Your task to perform on an android device: Open Wikipedia Image 0: 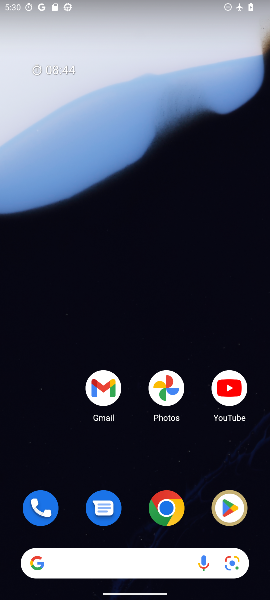
Step 0: drag from (185, 498) to (225, 213)
Your task to perform on an android device: Open Wikipedia Image 1: 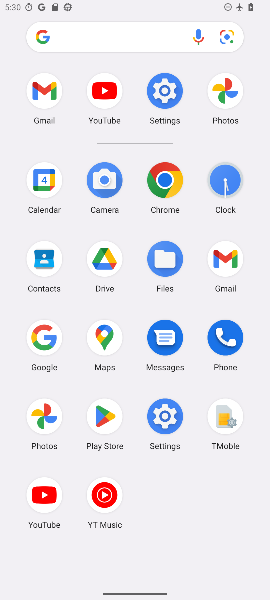
Step 1: drag from (193, 438) to (180, 220)
Your task to perform on an android device: Open Wikipedia Image 2: 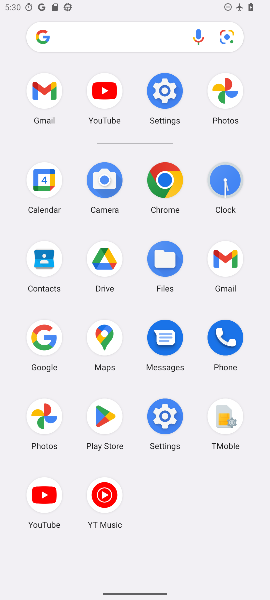
Step 2: click (146, 32)
Your task to perform on an android device: Open Wikipedia Image 3: 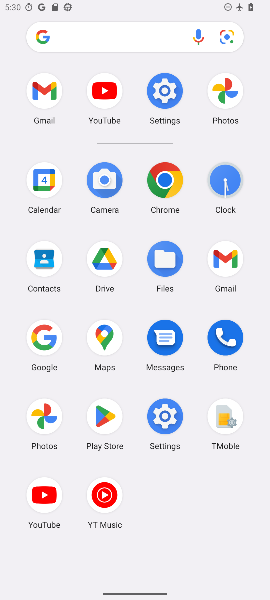
Step 3: click (146, 32)
Your task to perform on an android device: Open Wikipedia Image 4: 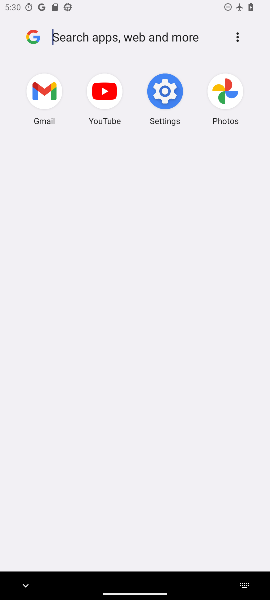
Step 4: click (163, 171)
Your task to perform on an android device: Open Wikipedia Image 5: 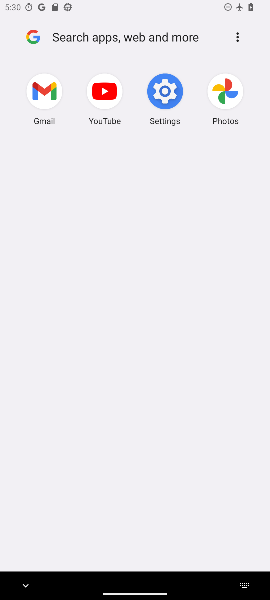
Step 5: drag from (152, 253) to (242, 317)
Your task to perform on an android device: Open Wikipedia Image 6: 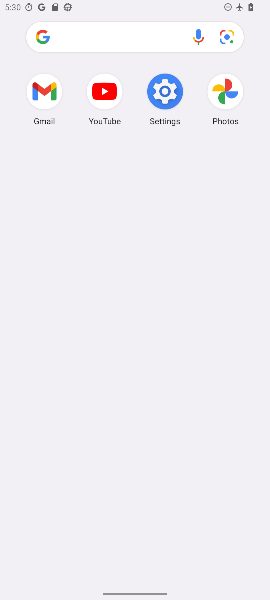
Step 6: drag from (207, 329) to (267, 182)
Your task to perform on an android device: Open Wikipedia Image 7: 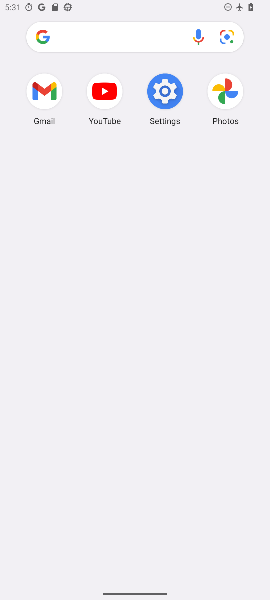
Step 7: drag from (85, 211) to (269, 219)
Your task to perform on an android device: Open Wikipedia Image 8: 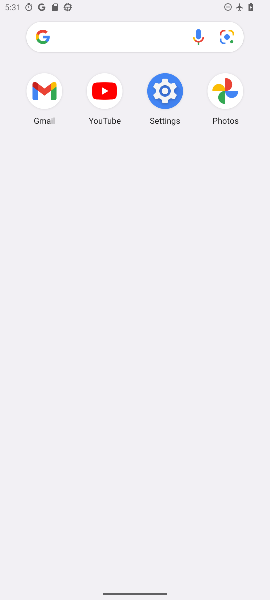
Step 8: drag from (224, 259) to (58, 508)
Your task to perform on an android device: Open Wikipedia Image 9: 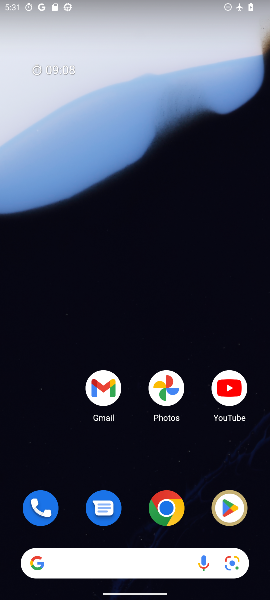
Step 9: drag from (125, 441) to (236, 244)
Your task to perform on an android device: Open Wikipedia Image 10: 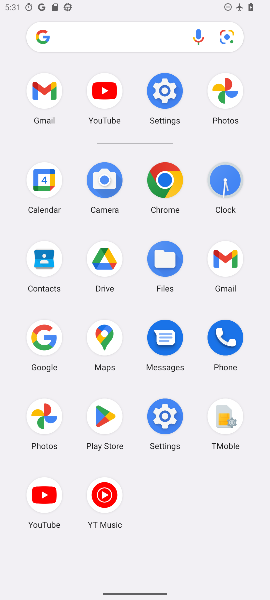
Step 10: click (157, 183)
Your task to perform on an android device: Open Wikipedia Image 11: 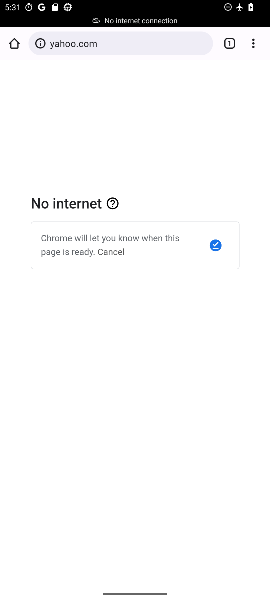
Step 11: click (135, 34)
Your task to perform on an android device: Open Wikipedia Image 12: 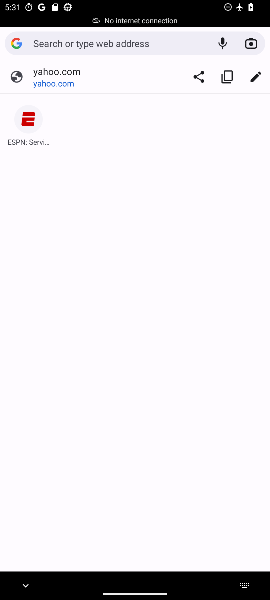
Step 12: type "Wikipedia"
Your task to perform on an android device: Open Wikipedia Image 13: 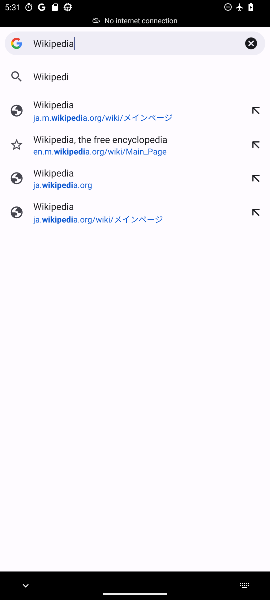
Step 13: type ""
Your task to perform on an android device: Open Wikipedia Image 14: 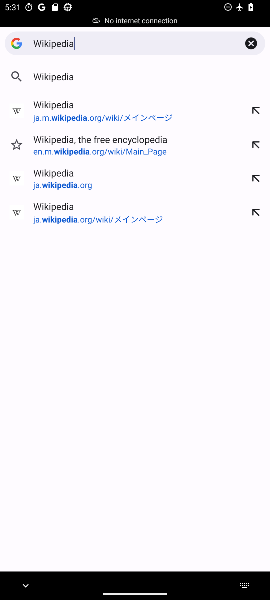
Step 14: click (66, 79)
Your task to perform on an android device: Open Wikipedia Image 15: 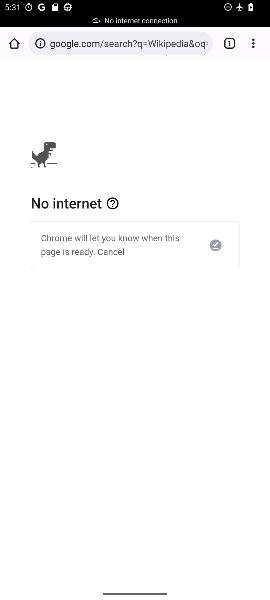
Step 15: task complete